Your task to perform on an android device: Open calendar and show me the third week of next month Image 0: 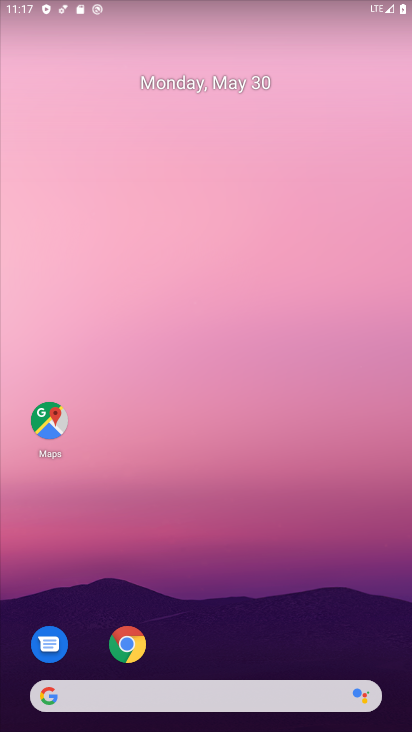
Step 0: drag from (286, 605) to (168, 41)
Your task to perform on an android device: Open calendar and show me the third week of next month Image 1: 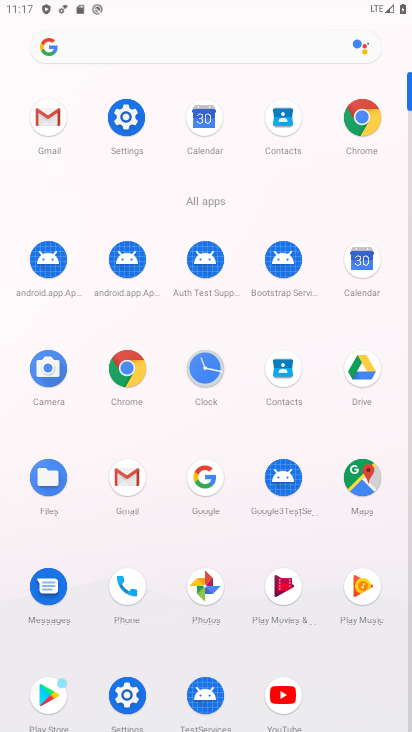
Step 1: click (359, 266)
Your task to perform on an android device: Open calendar and show me the third week of next month Image 2: 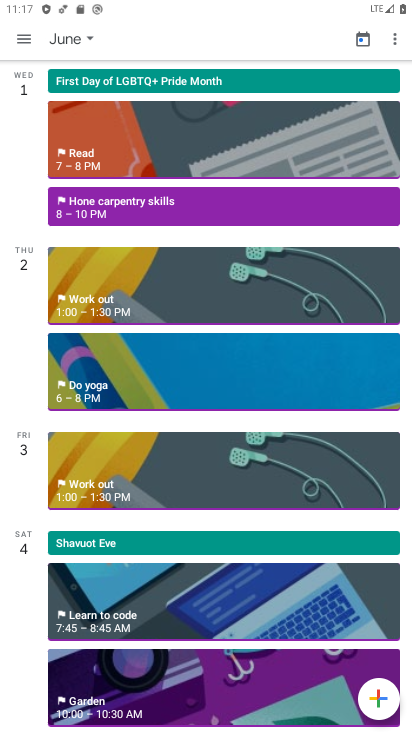
Step 2: click (100, 35)
Your task to perform on an android device: Open calendar and show me the third week of next month Image 3: 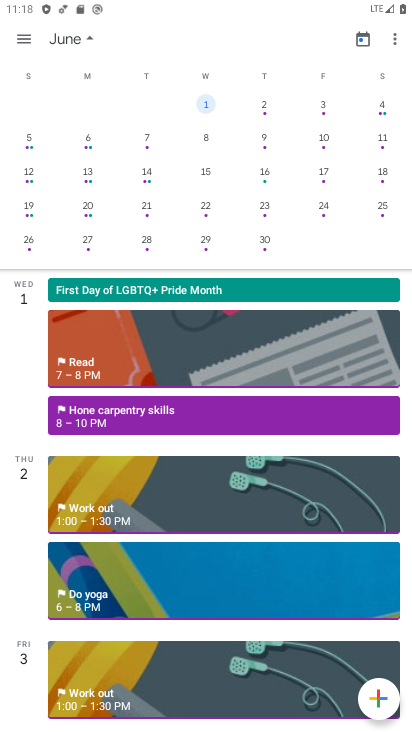
Step 3: click (194, 172)
Your task to perform on an android device: Open calendar and show me the third week of next month Image 4: 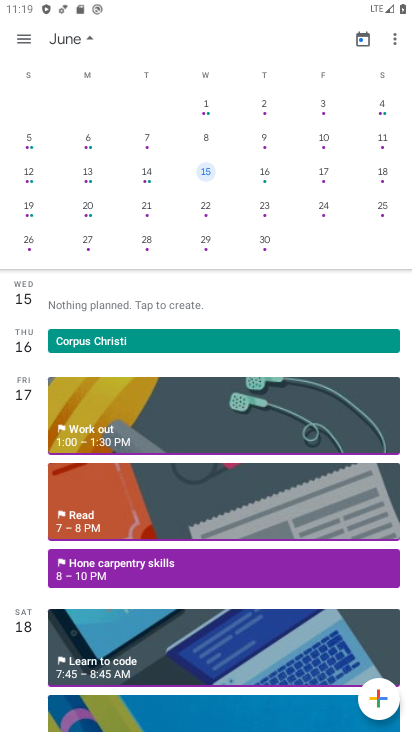
Step 4: task complete